Your task to perform on an android device: Add lenovo thinkpad to the cart on costco.com Image 0: 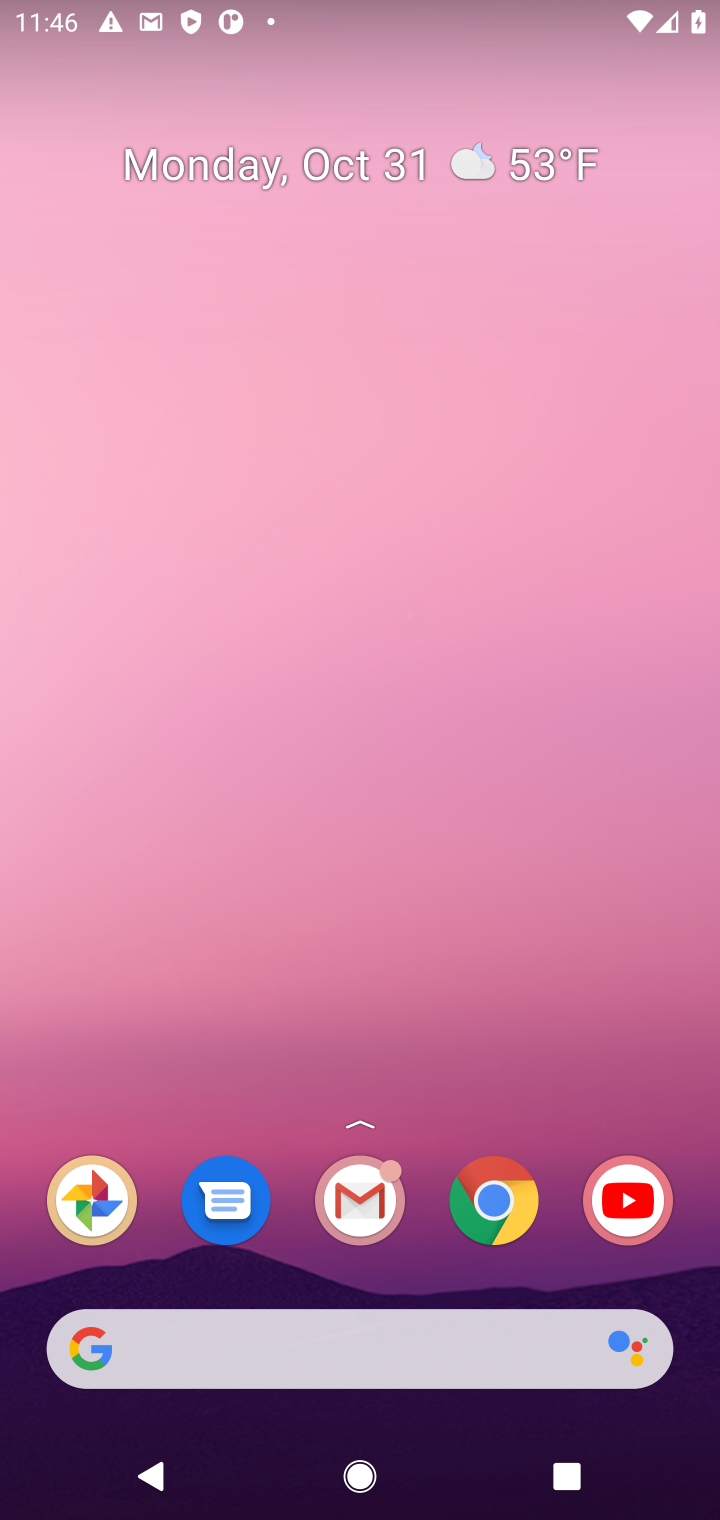
Step 0: click (492, 1209)
Your task to perform on an android device: Add lenovo thinkpad to the cart on costco.com Image 1: 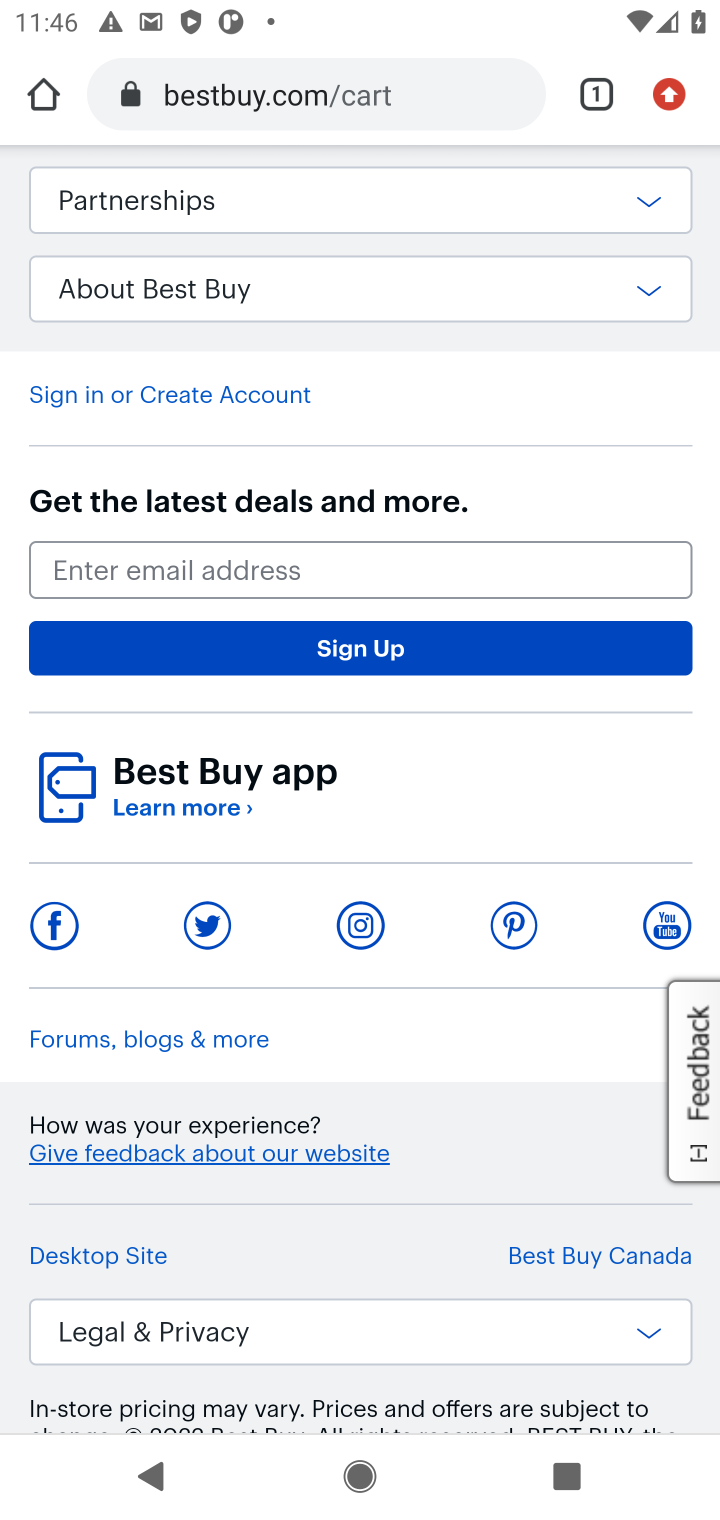
Step 1: click (326, 90)
Your task to perform on an android device: Add lenovo thinkpad to the cart on costco.com Image 2: 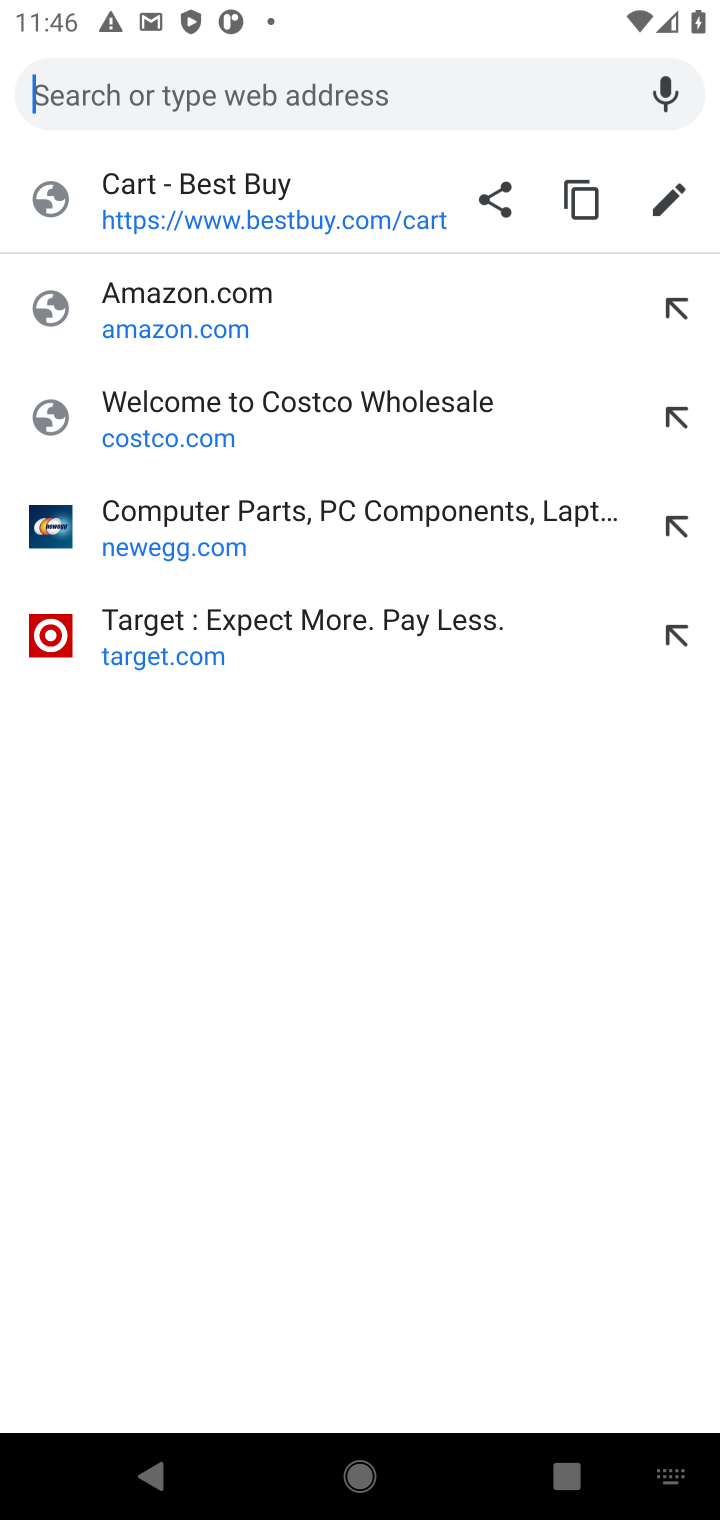
Step 2: type "costco.com"
Your task to perform on an android device: Add lenovo thinkpad to the cart on costco.com Image 3: 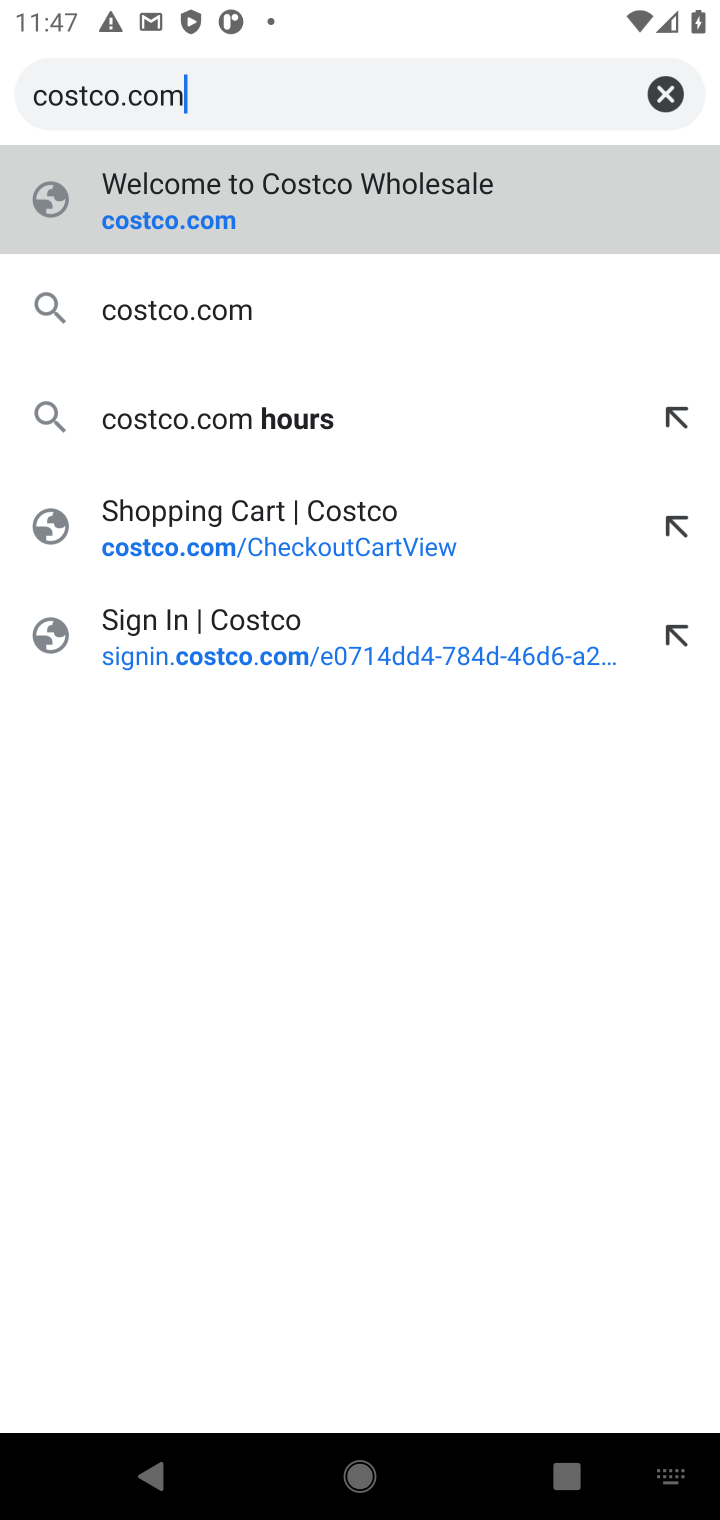
Step 3: click (488, 179)
Your task to perform on an android device: Add lenovo thinkpad to the cart on costco.com Image 4: 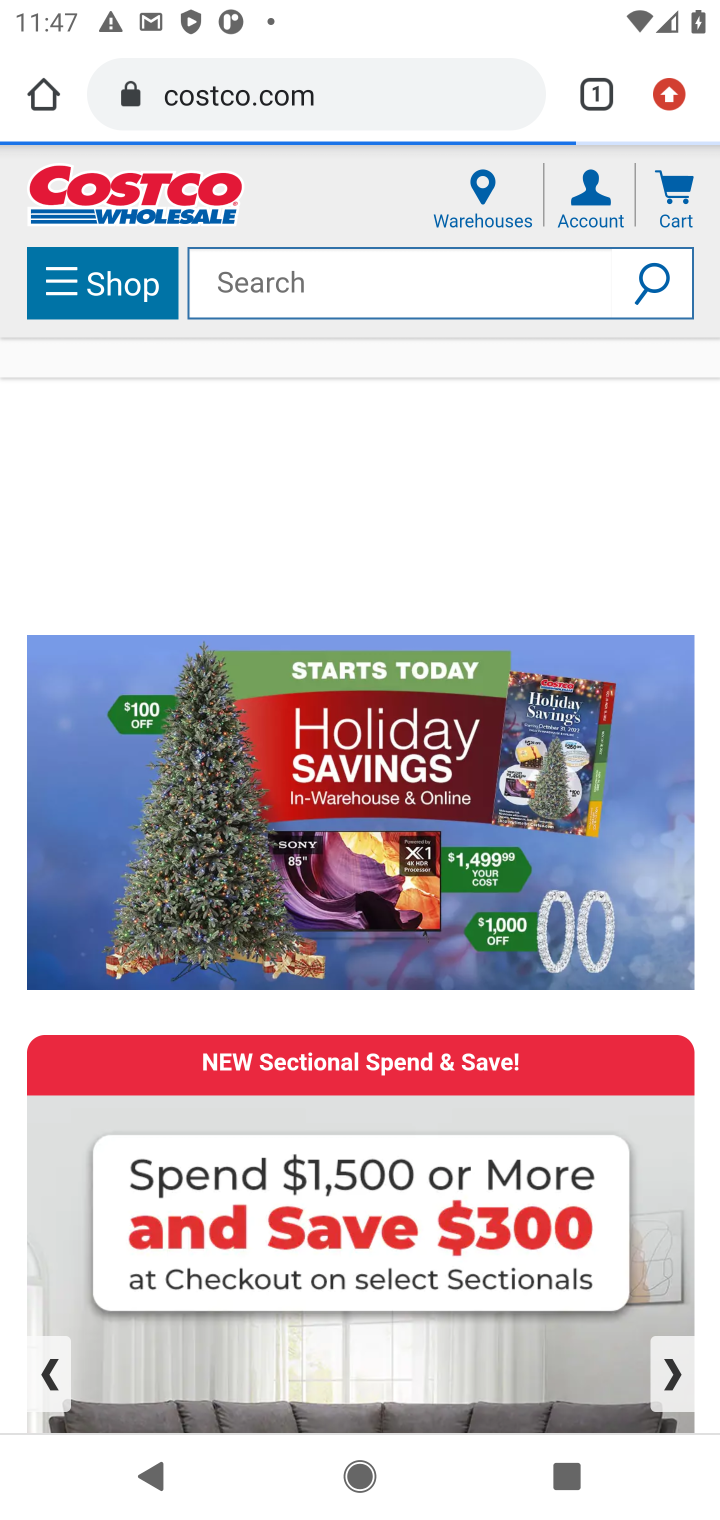
Step 4: click (452, 294)
Your task to perform on an android device: Add lenovo thinkpad to the cart on costco.com Image 5: 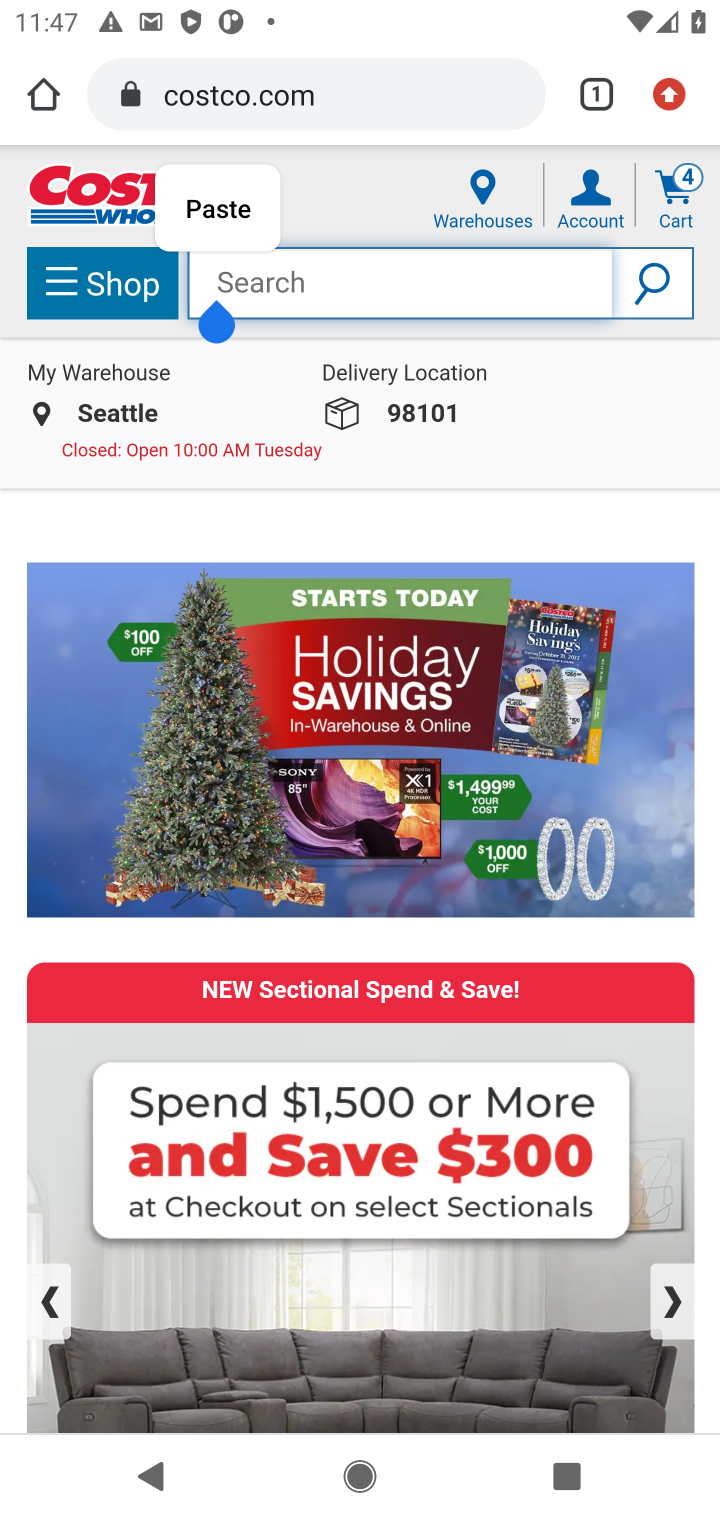
Step 5: type "lenovo thinkpad"
Your task to perform on an android device: Add lenovo thinkpad to the cart on costco.com Image 6: 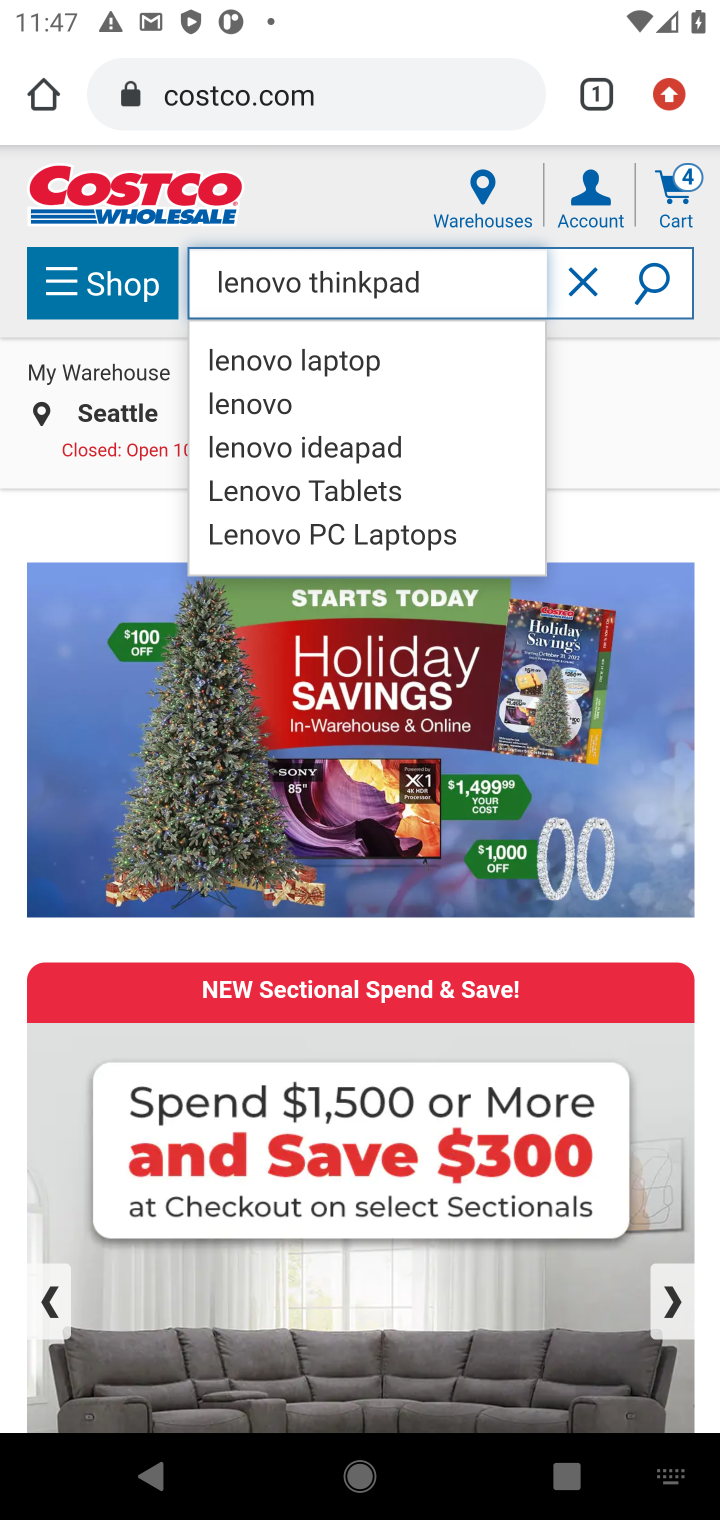
Step 6: press enter
Your task to perform on an android device: Add lenovo thinkpad to the cart on costco.com Image 7: 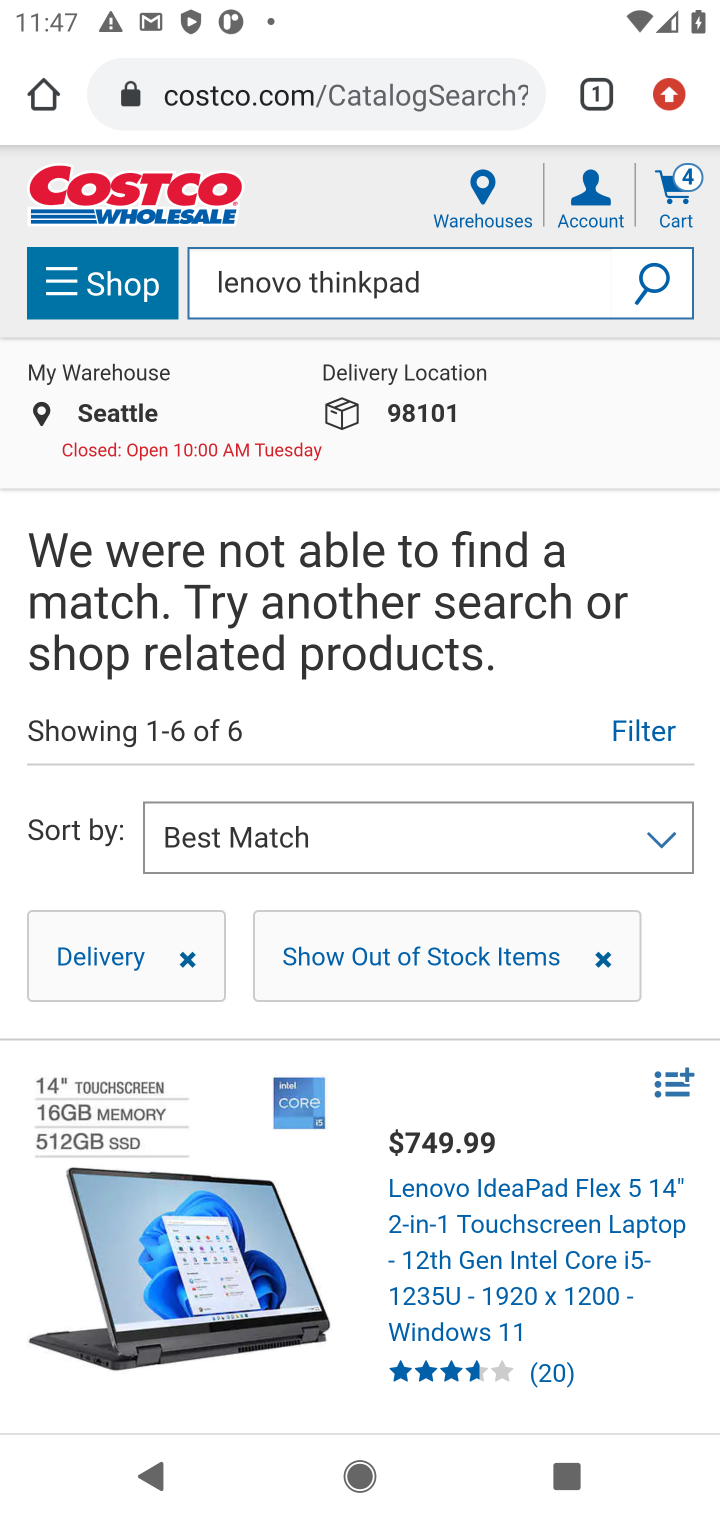
Step 7: drag from (485, 885) to (505, 630)
Your task to perform on an android device: Add lenovo thinkpad to the cart on costco.com Image 8: 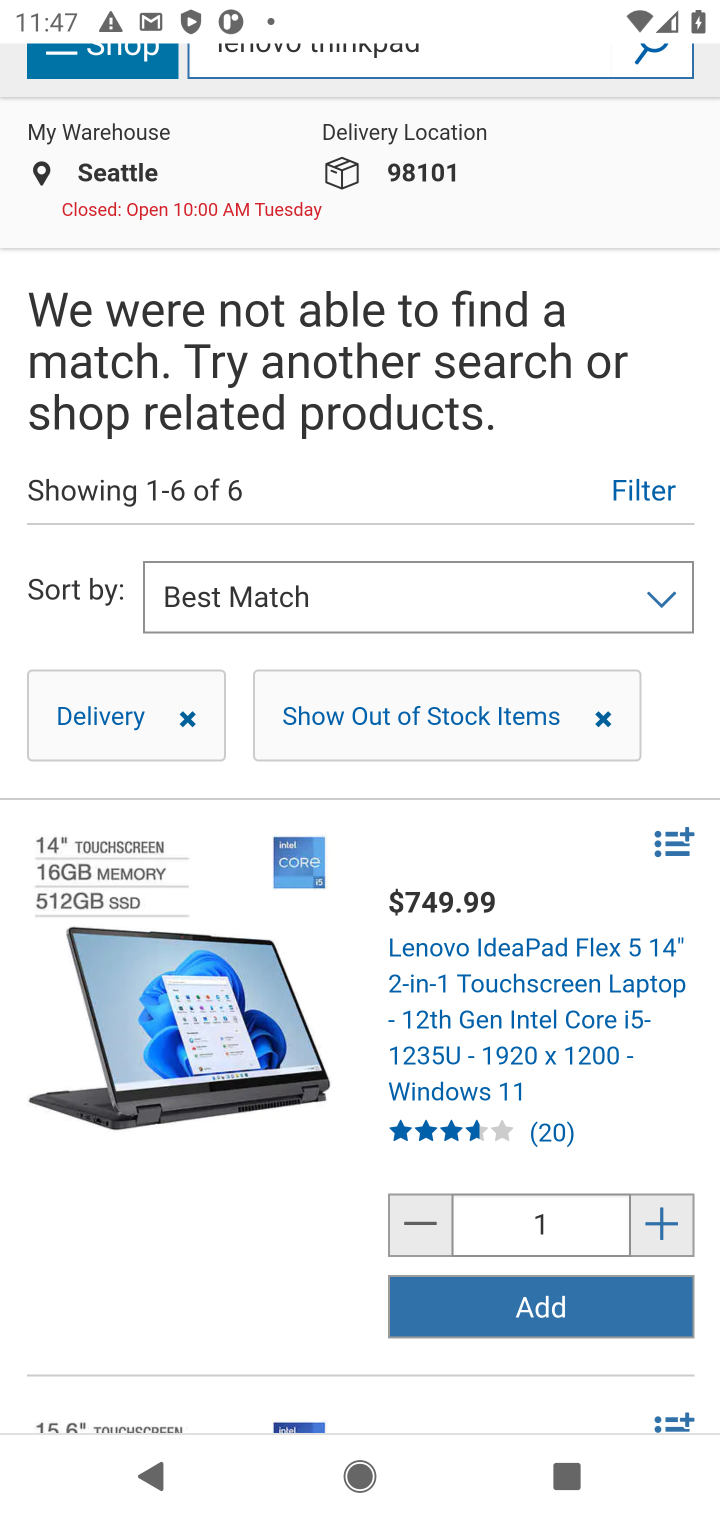
Step 8: drag from (452, 1150) to (424, 655)
Your task to perform on an android device: Add lenovo thinkpad to the cart on costco.com Image 9: 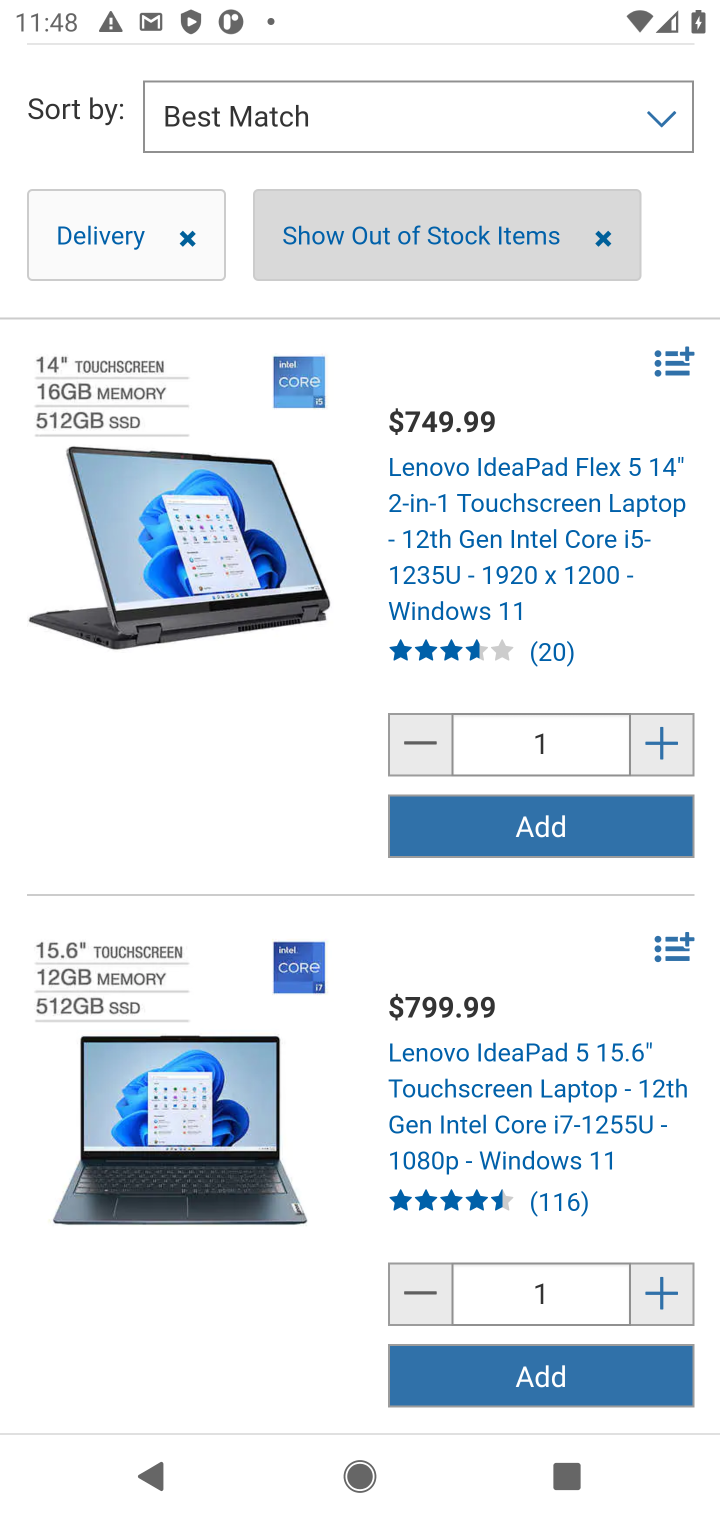
Step 9: click (542, 810)
Your task to perform on an android device: Add lenovo thinkpad to the cart on costco.com Image 10: 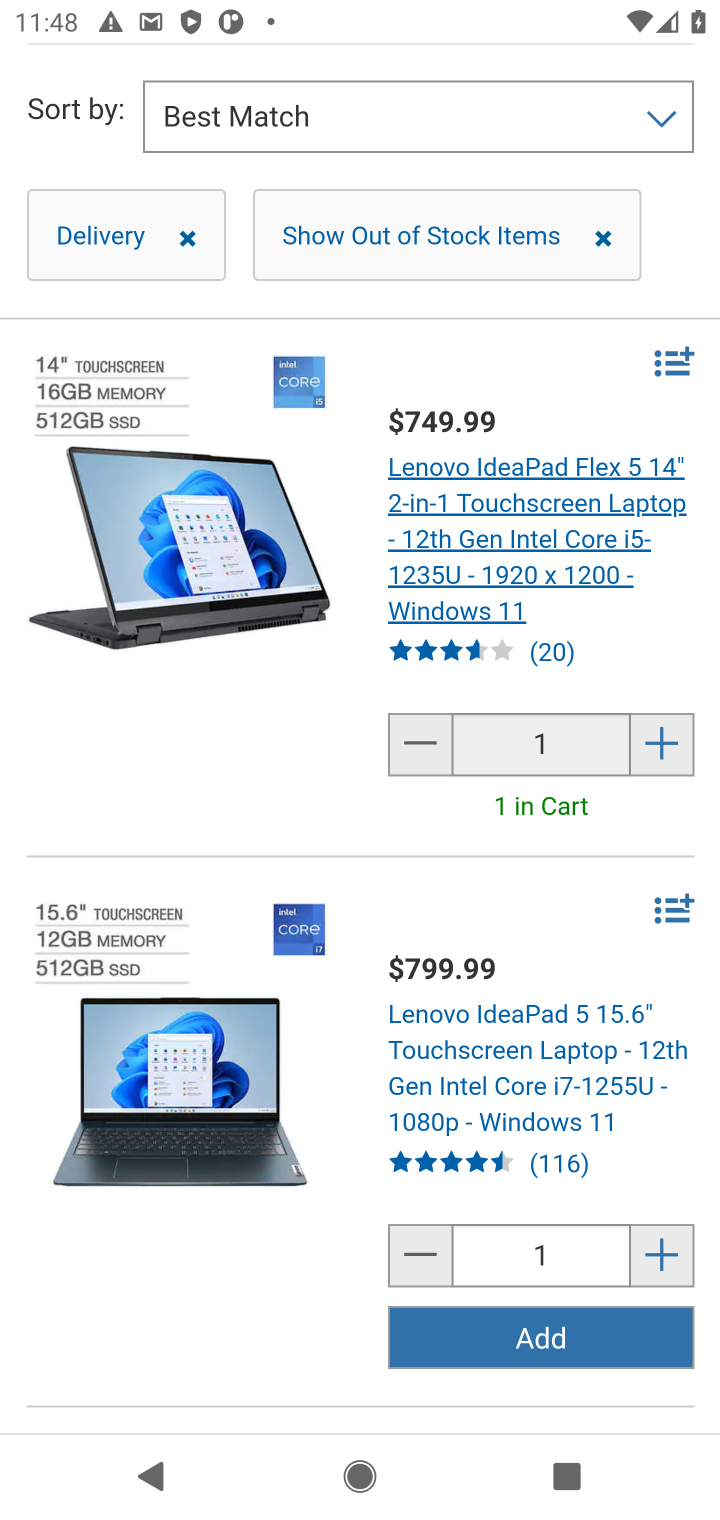
Step 10: drag from (593, 452) to (441, 1270)
Your task to perform on an android device: Add lenovo thinkpad to the cart on costco.com Image 11: 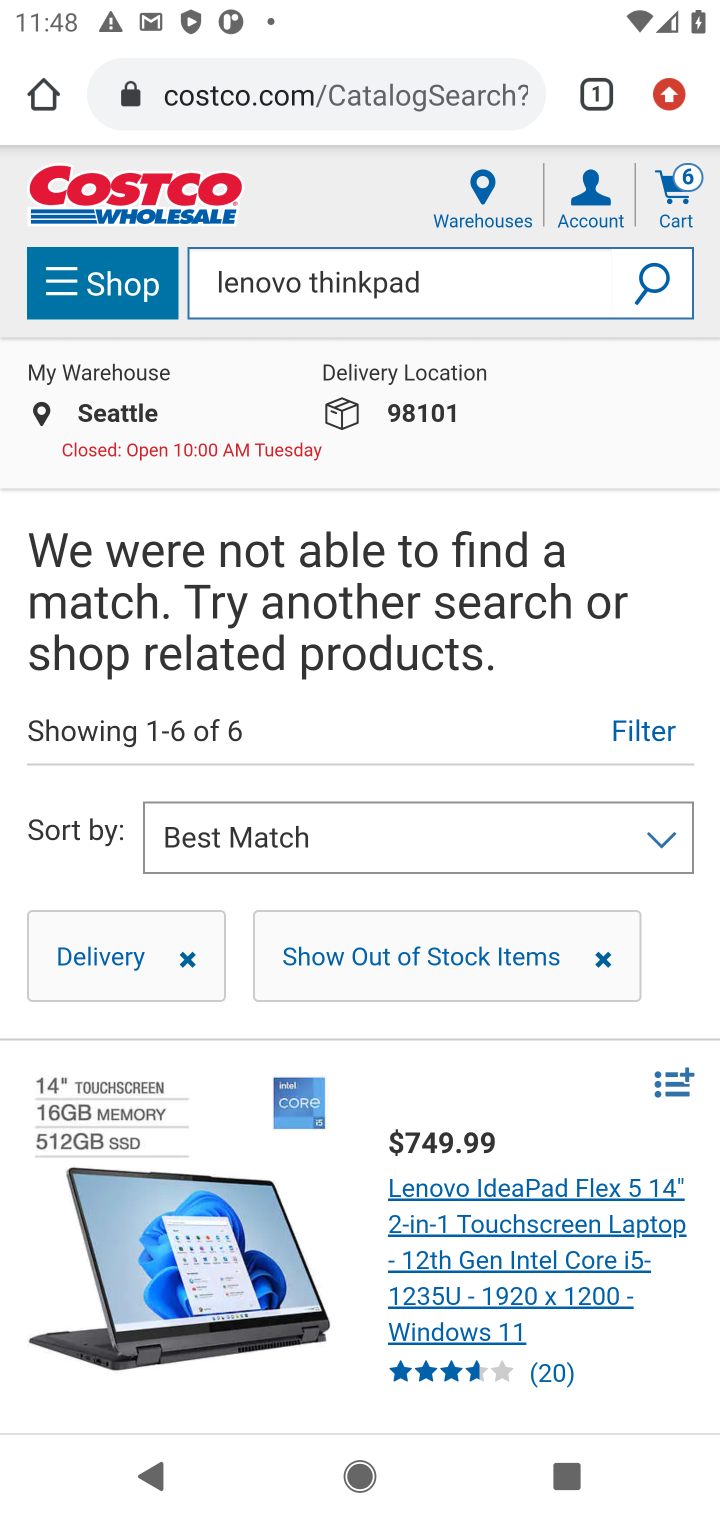
Step 11: click (698, 192)
Your task to perform on an android device: Add lenovo thinkpad to the cart on costco.com Image 12: 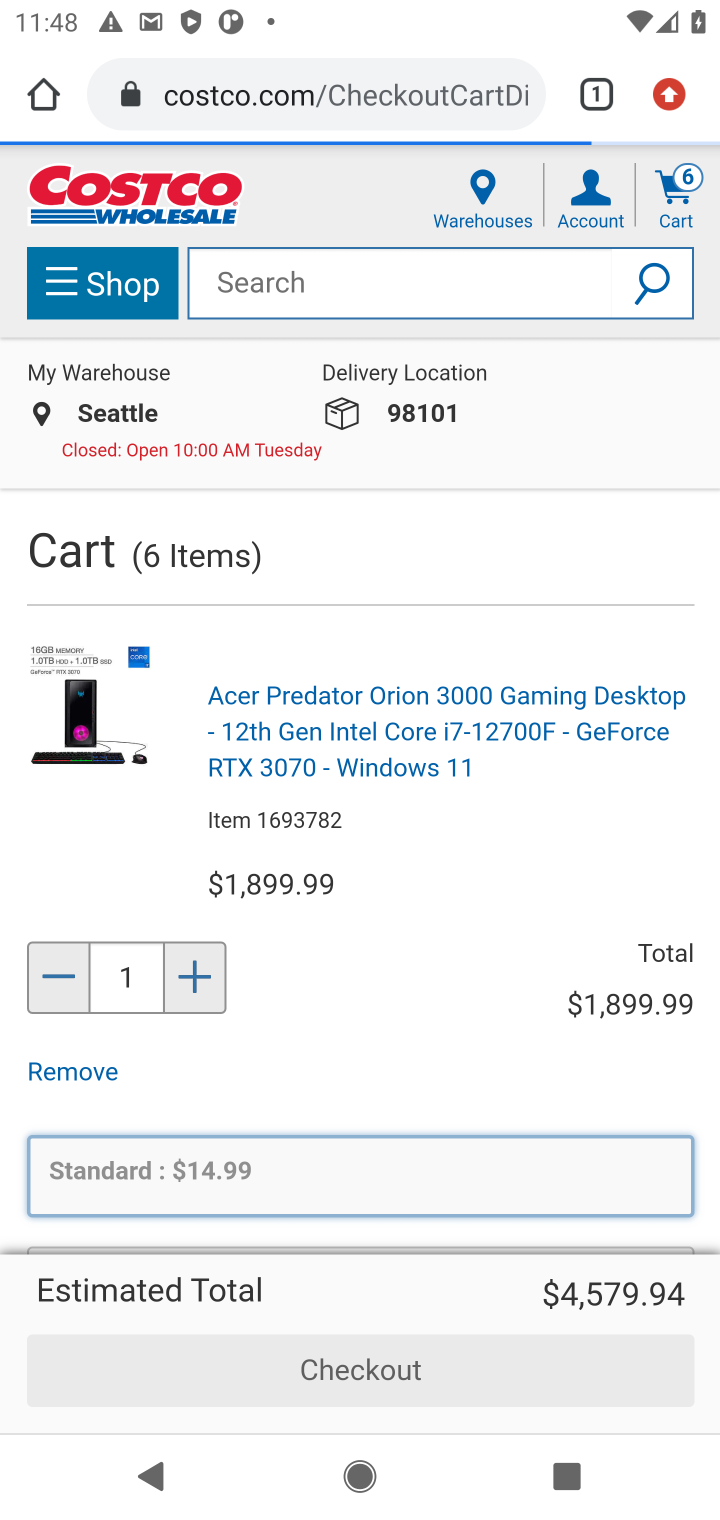
Step 12: task complete